Your task to perform on an android device: Open ESPN.com Image 0: 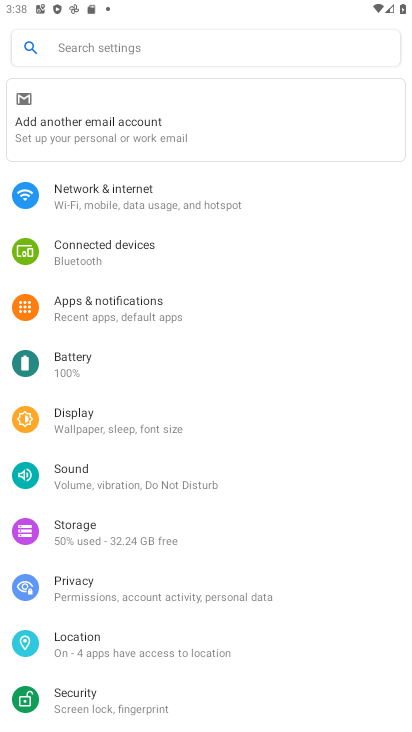
Step 0: press home button
Your task to perform on an android device: Open ESPN.com Image 1: 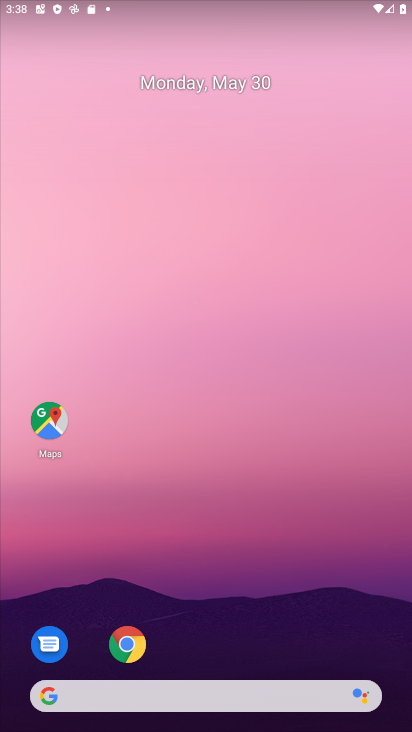
Step 1: drag from (269, 640) to (219, 82)
Your task to perform on an android device: Open ESPN.com Image 2: 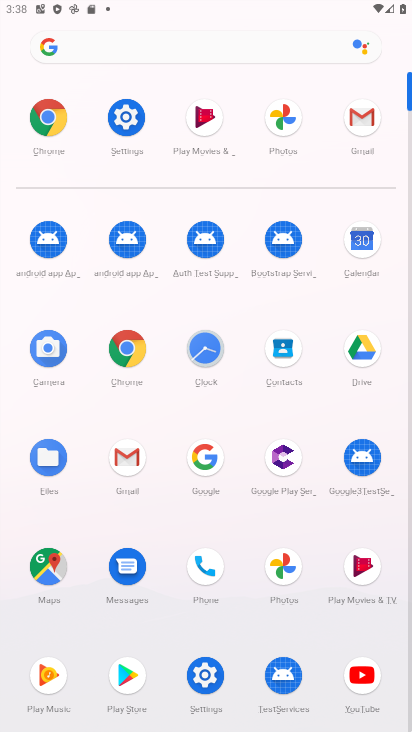
Step 2: click (209, 43)
Your task to perform on an android device: Open ESPN.com Image 3: 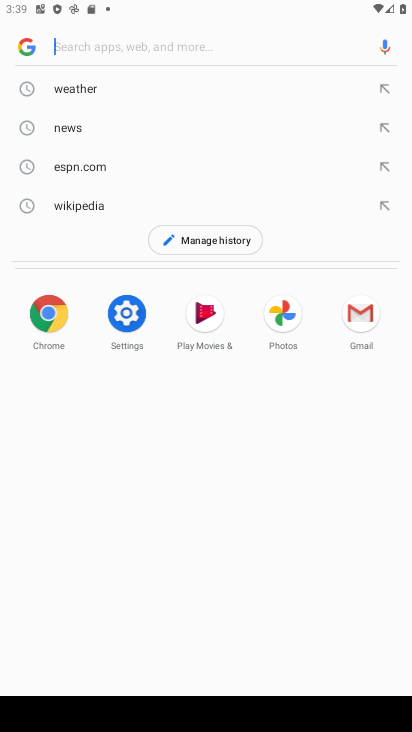
Step 3: click (206, 173)
Your task to perform on an android device: Open ESPN.com Image 4: 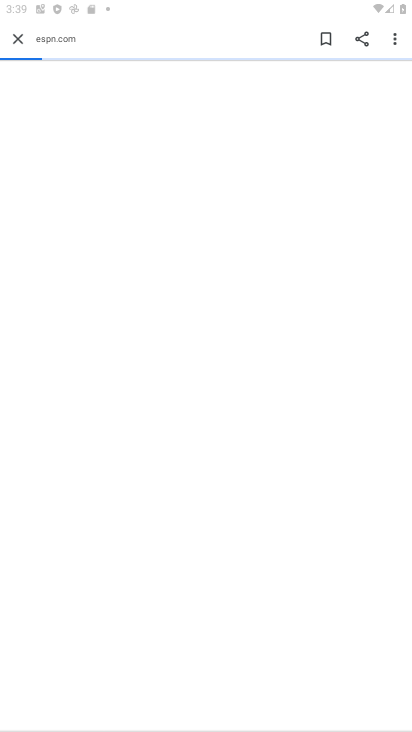
Step 4: task complete